Your task to perform on an android device: Toggle the flashlight Image 0: 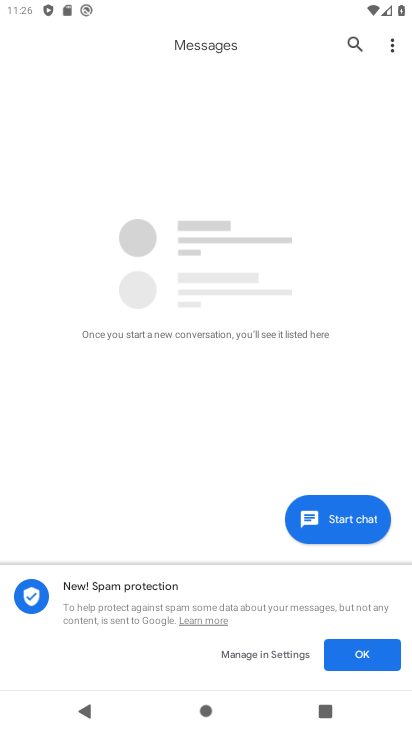
Step 0: press home button
Your task to perform on an android device: Toggle the flashlight Image 1: 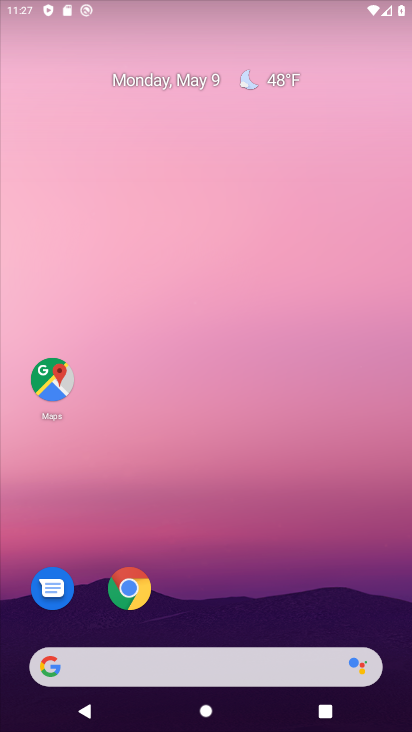
Step 1: drag from (197, 572) to (276, 189)
Your task to perform on an android device: Toggle the flashlight Image 2: 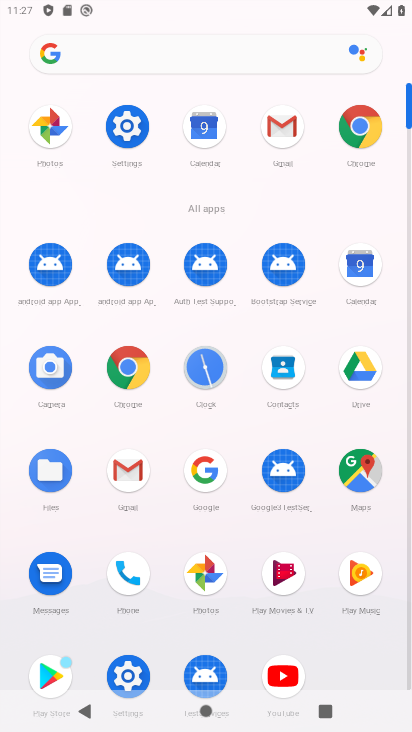
Step 2: click (114, 135)
Your task to perform on an android device: Toggle the flashlight Image 3: 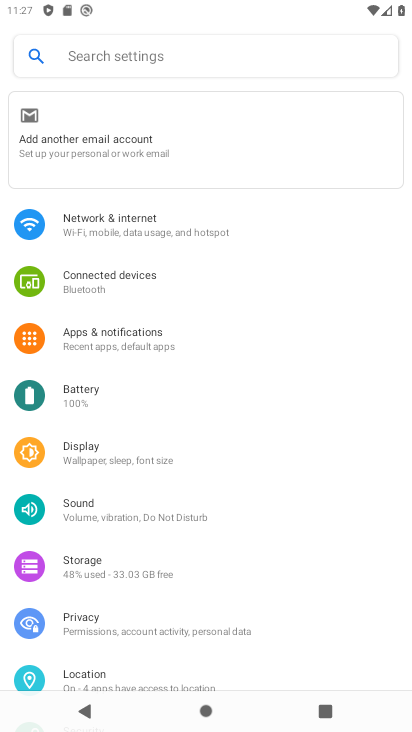
Step 3: task complete